Your task to perform on an android device: check google app version Image 0: 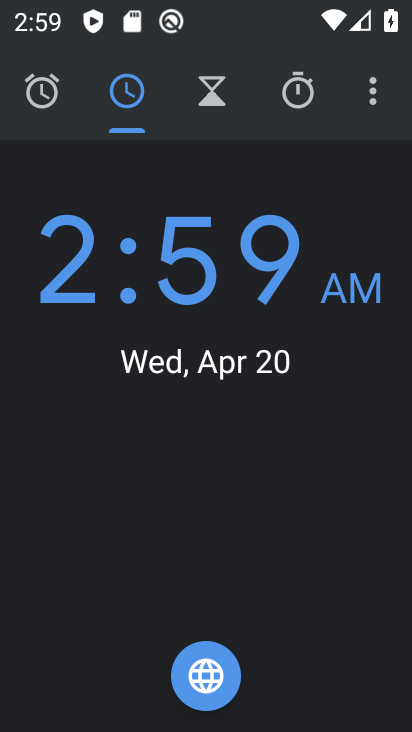
Step 0: press home button
Your task to perform on an android device: check google app version Image 1: 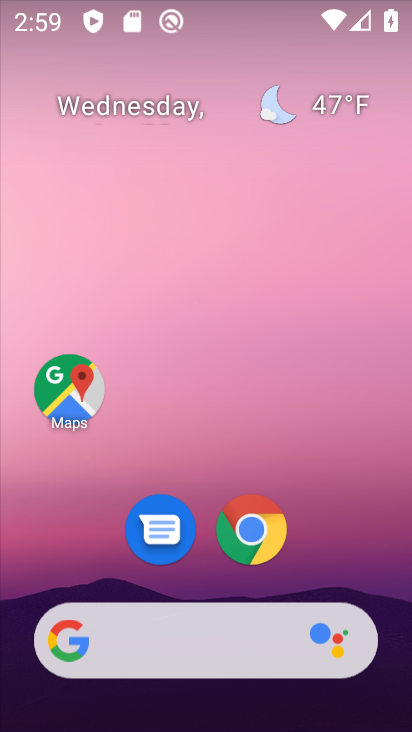
Step 1: drag from (204, 582) to (257, 192)
Your task to perform on an android device: check google app version Image 2: 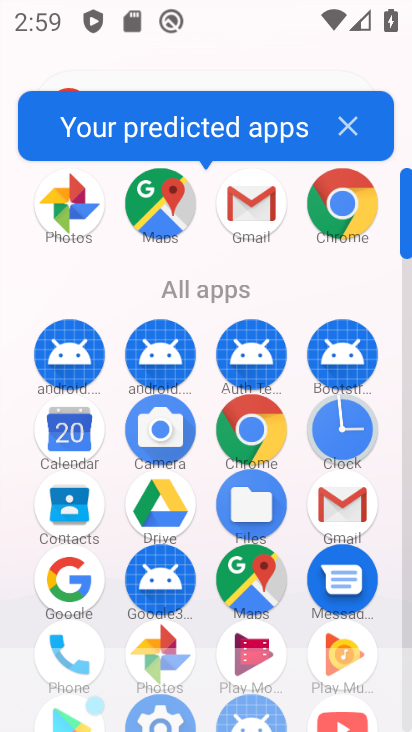
Step 2: click (63, 597)
Your task to perform on an android device: check google app version Image 3: 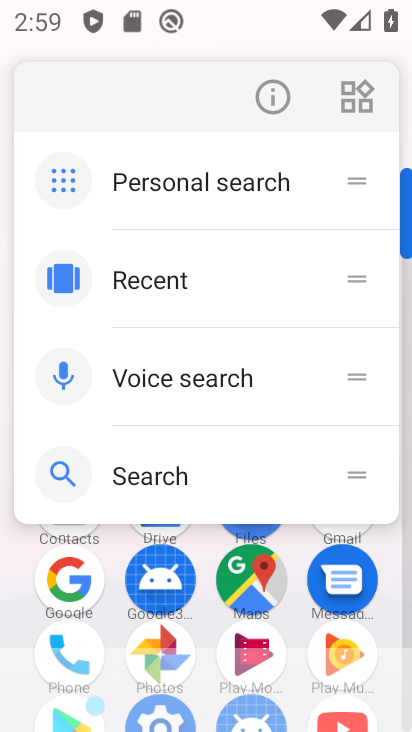
Step 3: click (70, 589)
Your task to perform on an android device: check google app version Image 4: 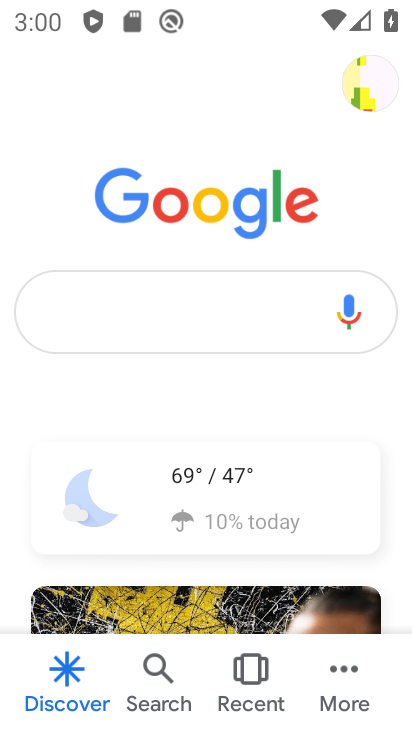
Step 4: click (350, 679)
Your task to perform on an android device: check google app version Image 5: 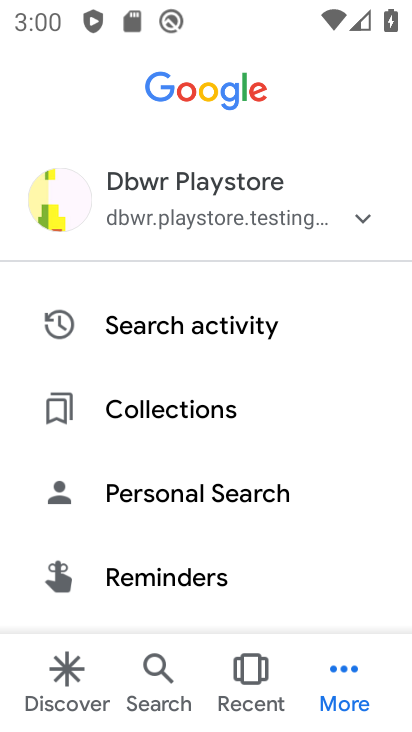
Step 5: drag from (167, 590) to (200, 155)
Your task to perform on an android device: check google app version Image 6: 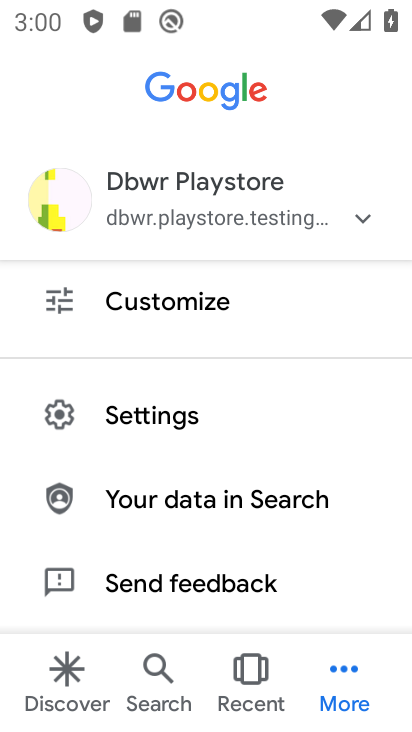
Step 6: click (157, 421)
Your task to perform on an android device: check google app version Image 7: 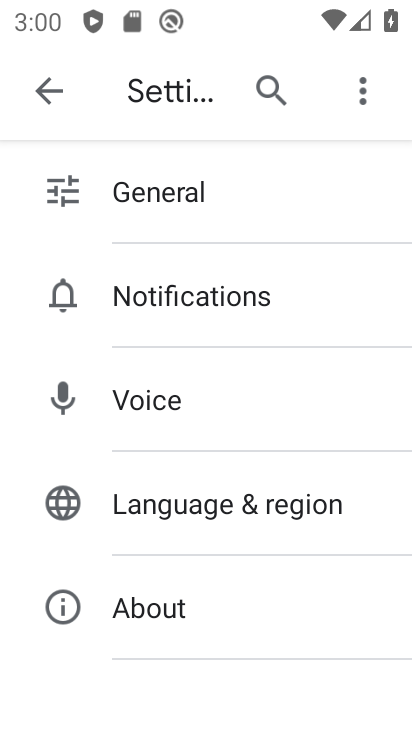
Step 7: click (139, 612)
Your task to perform on an android device: check google app version Image 8: 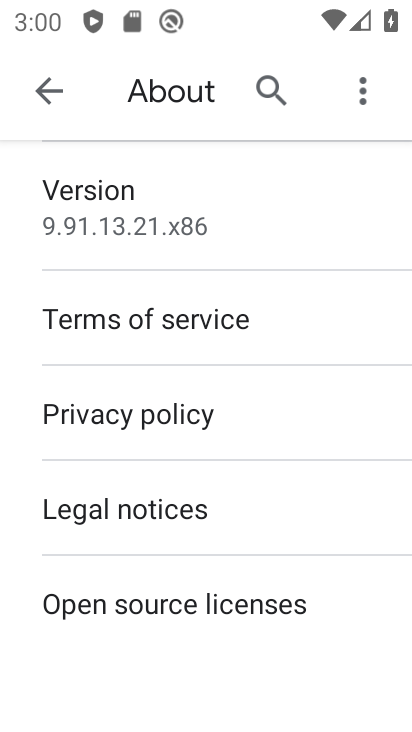
Step 8: click (135, 223)
Your task to perform on an android device: check google app version Image 9: 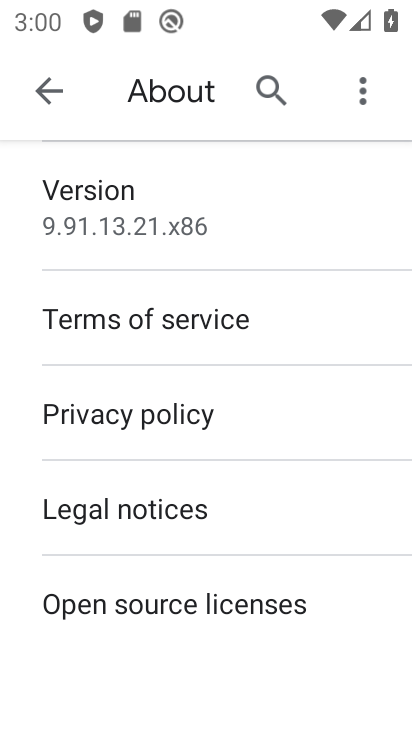
Step 9: click (135, 223)
Your task to perform on an android device: check google app version Image 10: 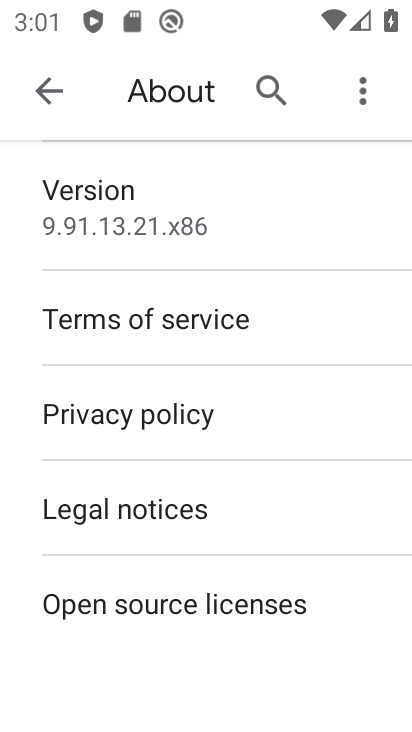
Step 10: click (135, 223)
Your task to perform on an android device: check google app version Image 11: 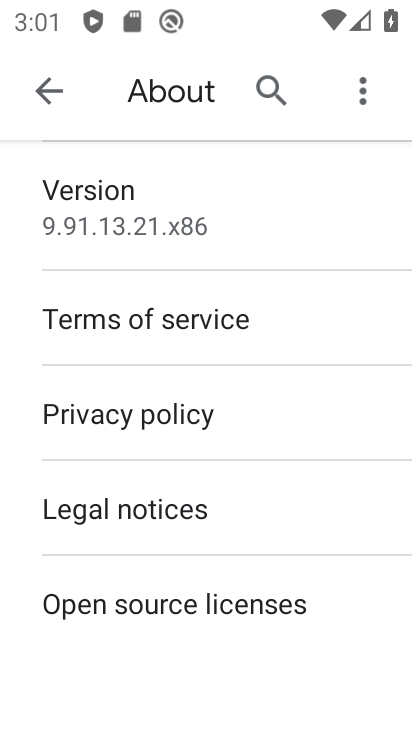
Step 11: click (216, 211)
Your task to perform on an android device: check google app version Image 12: 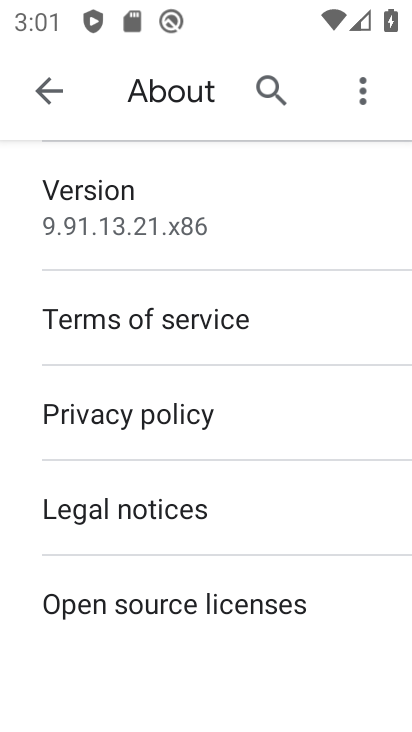
Step 12: task complete